Your task to perform on an android device: toggle wifi Image 0: 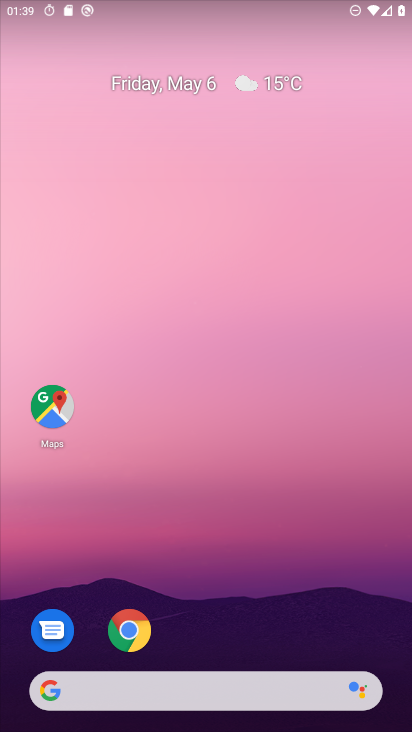
Step 0: drag from (343, 556) to (354, 117)
Your task to perform on an android device: toggle wifi Image 1: 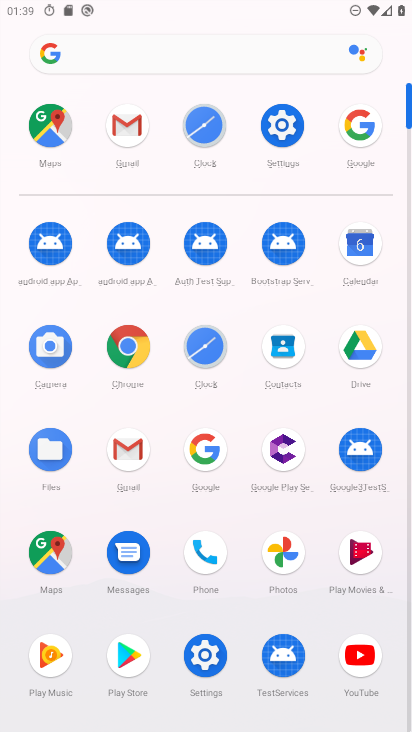
Step 1: click (282, 128)
Your task to perform on an android device: toggle wifi Image 2: 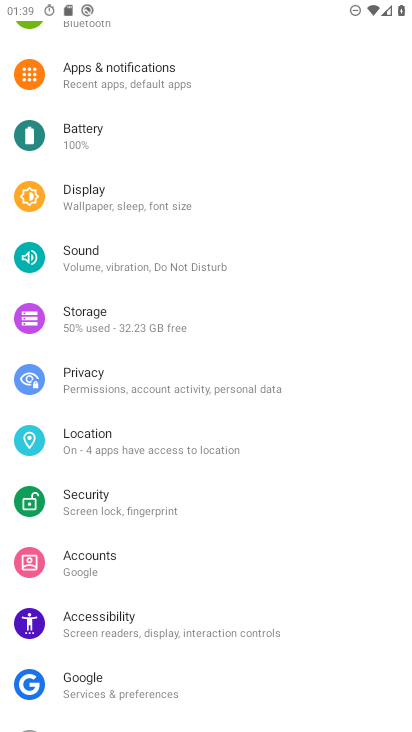
Step 2: drag from (197, 285) to (215, 608)
Your task to perform on an android device: toggle wifi Image 3: 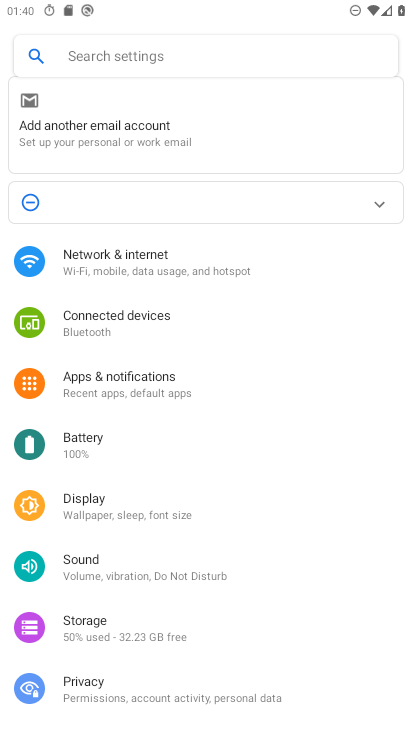
Step 3: drag from (193, 506) to (208, 598)
Your task to perform on an android device: toggle wifi Image 4: 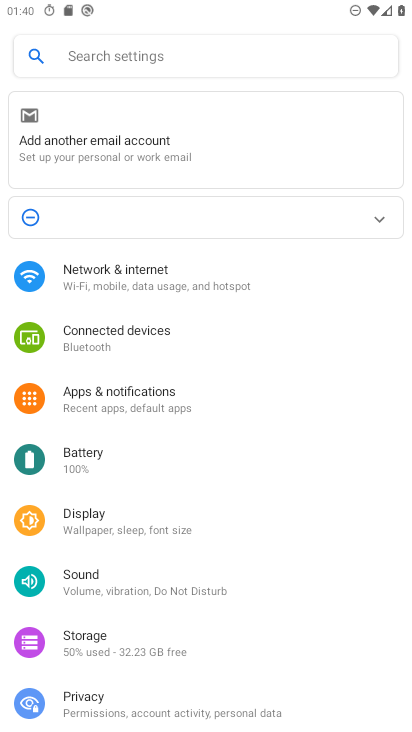
Step 4: click (157, 265)
Your task to perform on an android device: toggle wifi Image 5: 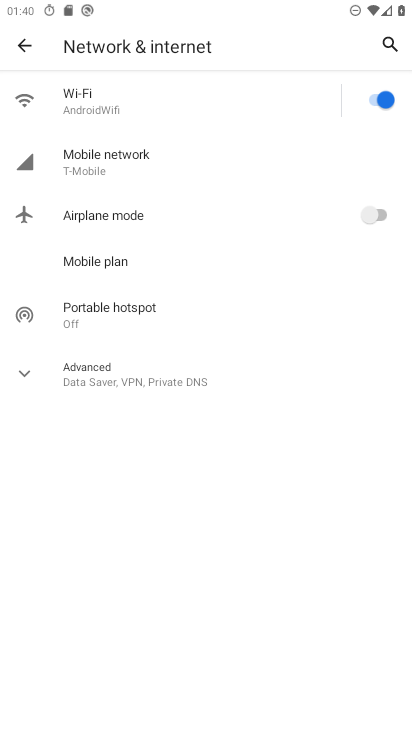
Step 5: click (389, 91)
Your task to perform on an android device: toggle wifi Image 6: 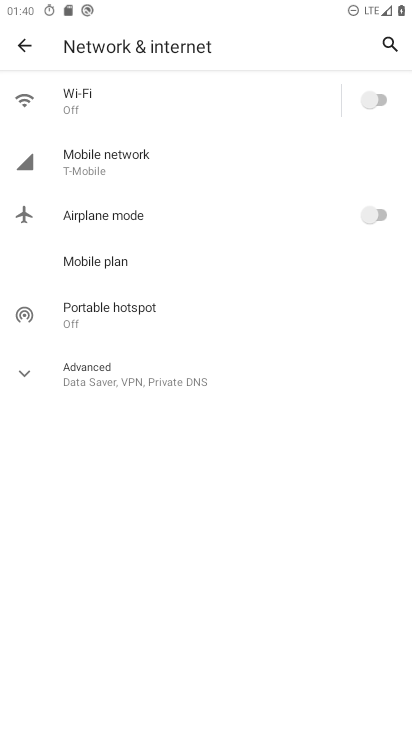
Step 6: task complete